Your task to perform on an android device: turn on the 24-hour format for clock Image 0: 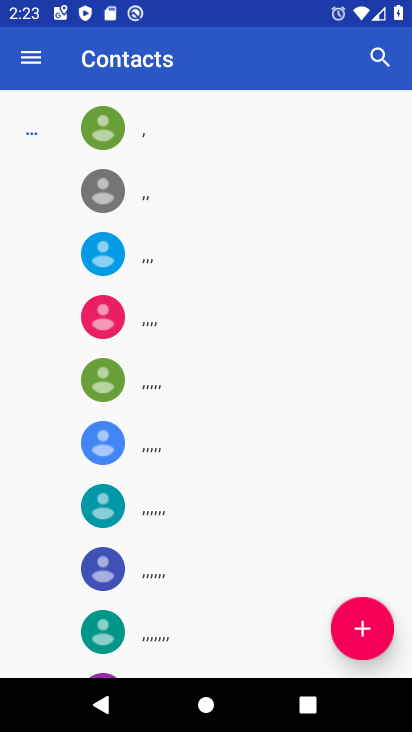
Step 0: press home button
Your task to perform on an android device: turn on the 24-hour format for clock Image 1: 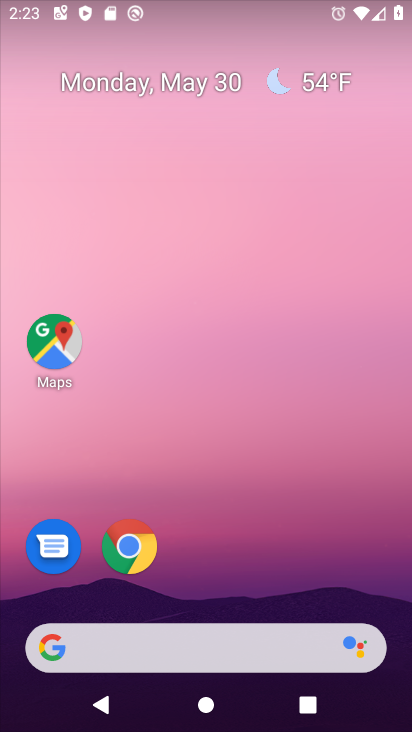
Step 1: drag from (203, 590) to (276, 14)
Your task to perform on an android device: turn on the 24-hour format for clock Image 2: 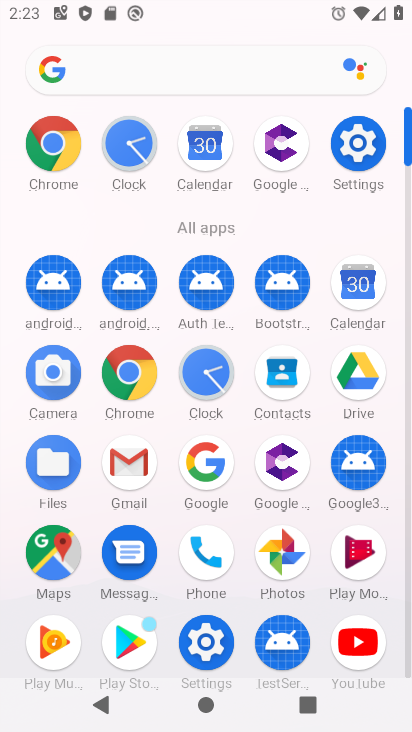
Step 2: click (204, 365)
Your task to perform on an android device: turn on the 24-hour format for clock Image 3: 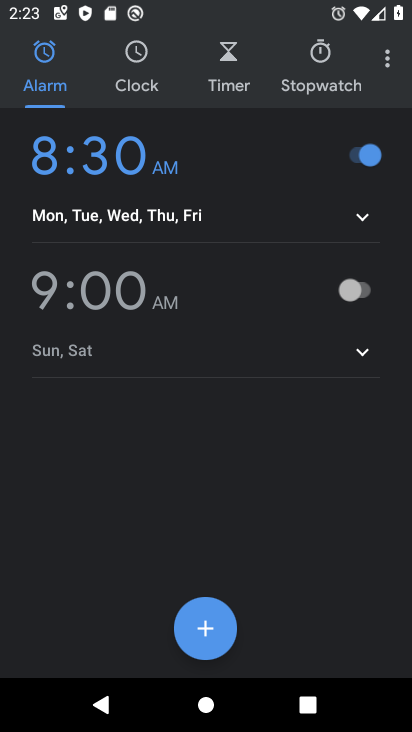
Step 3: click (383, 60)
Your task to perform on an android device: turn on the 24-hour format for clock Image 4: 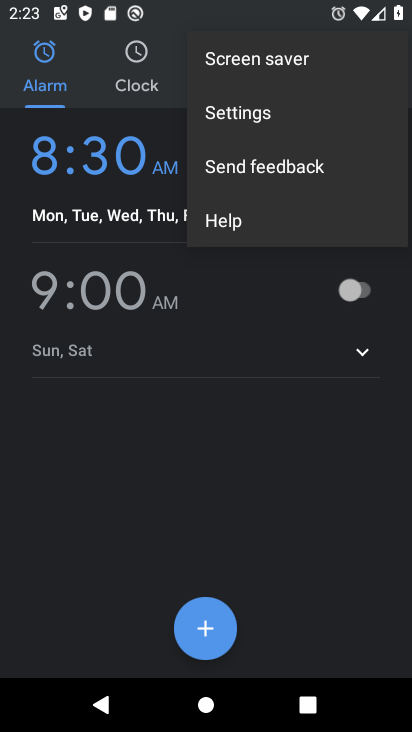
Step 4: click (284, 108)
Your task to perform on an android device: turn on the 24-hour format for clock Image 5: 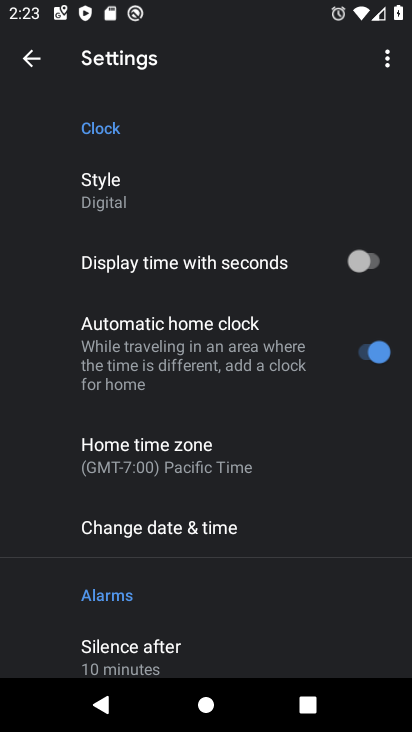
Step 5: click (229, 513)
Your task to perform on an android device: turn on the 24-hour format for clock Image 6: 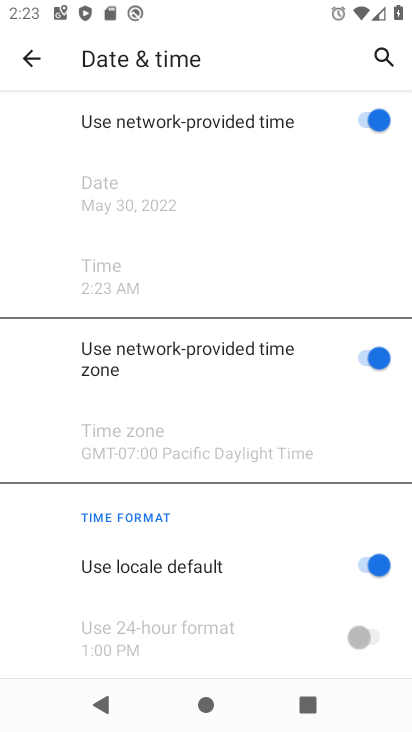
Step 6: click (369, 564)
Your task to perform on an android device: turn on the 24-hour format for clock Image 7: 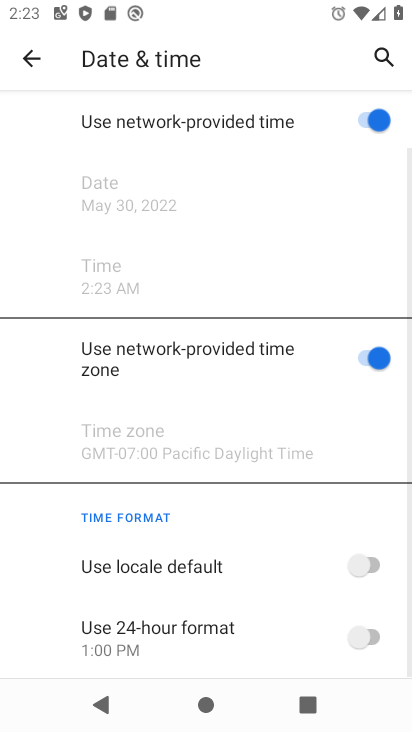
Step 7: click (368, 631)
Your task to perform on an android device: turn on the 24-hour format for clock Image 8: 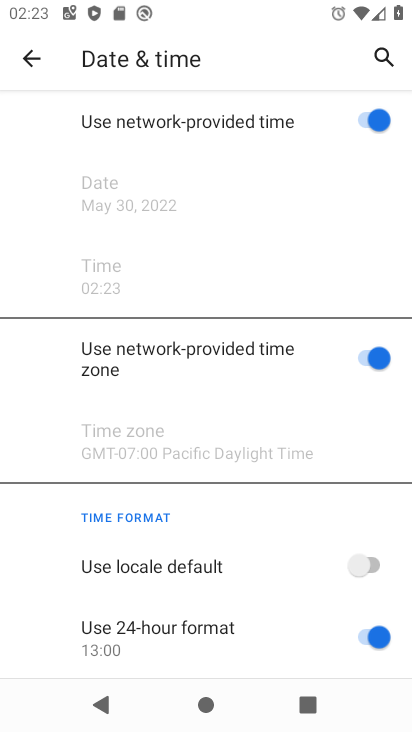
Step 8: task complete